Your task to perform on an android device: toggle translation in the chrome app Image 0: 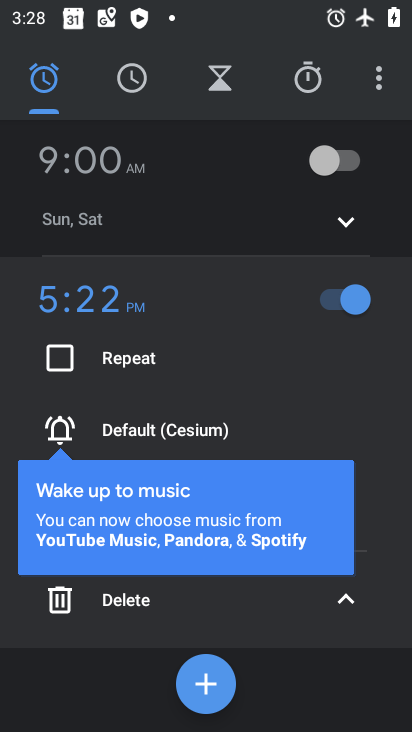
Step 0: press home button
Your task to perform on an android device: toggle translation in the chrome app Image 1: 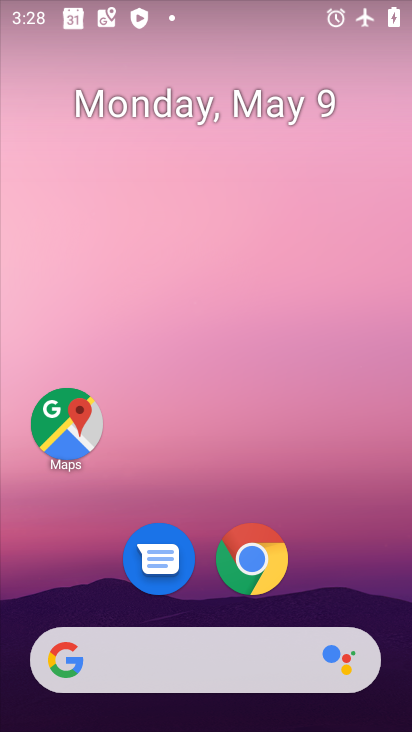
Step 1: click (249, 558)
Your task to perform on an android device: toggle translation in the chrome app Image 2: 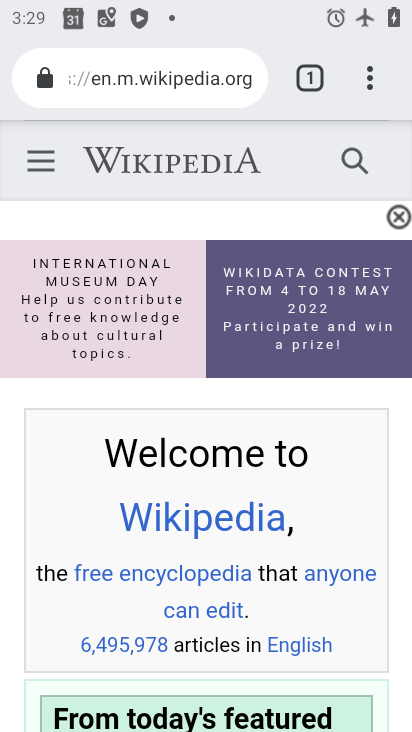
Step 2: click (373, 80)
Your task to perform on an android device: toggle translation in the chrome app Image 3: 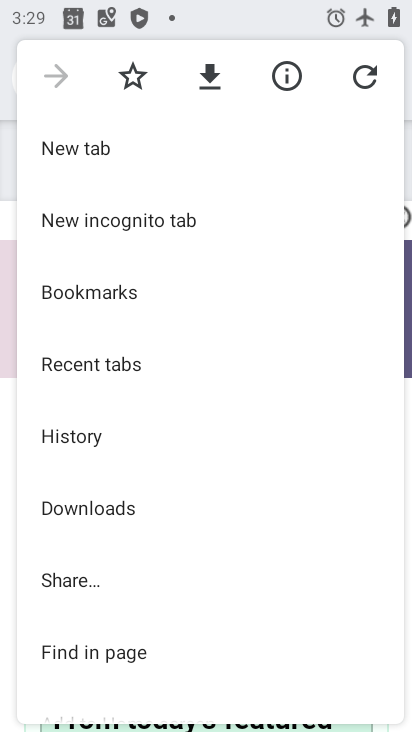
Step 3: drag from (135, 641) to (149, 390)
Your task to perform on an android device: toggle translation in the chrome app Image 4: 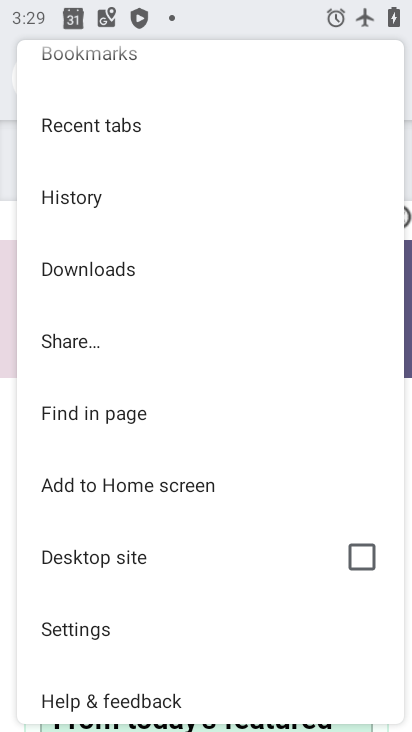
Step 4: click (83, 631)
Your task to perform on an android device: toggle translation in the chrome app Image 5: 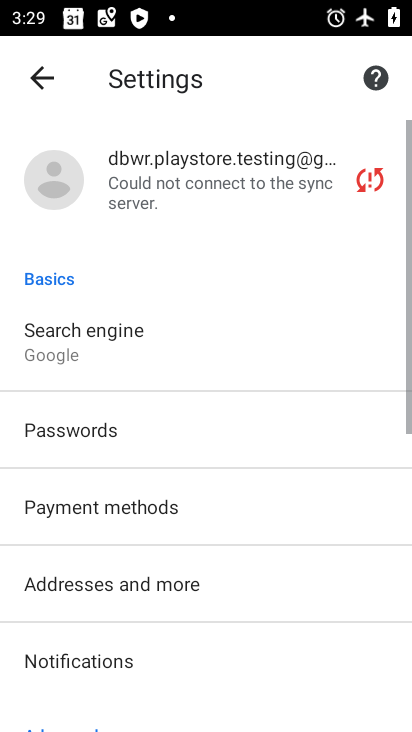
Step 5: drag from (169, 644) to (232, 349)
Your task to perform on an android device: toggle translation in the chrome app Image 6: 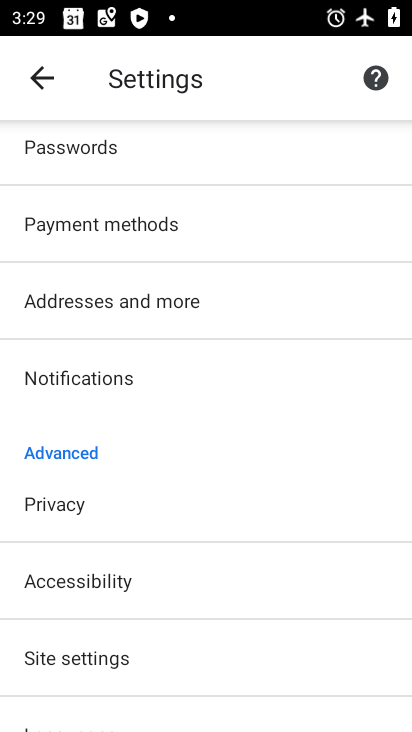
Step 6: drag from (201, 665) to (209, 428)
Your task to perform on an android device: toggle translation in the chrome app Image 7: 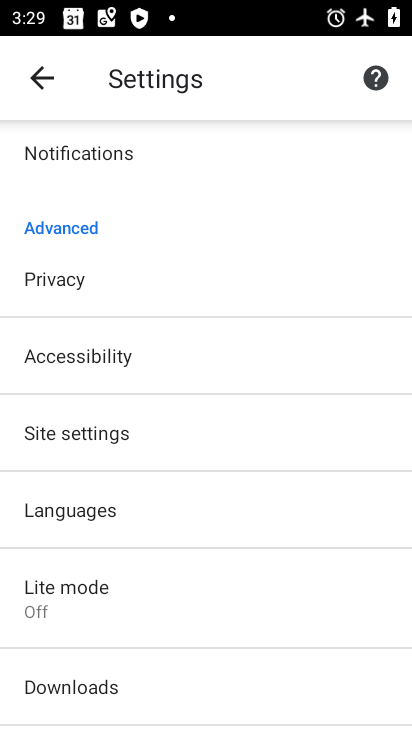
Step 7: click (95, 503)
Your task to perform on an android device: toggle translation in the chrome app Image 8: 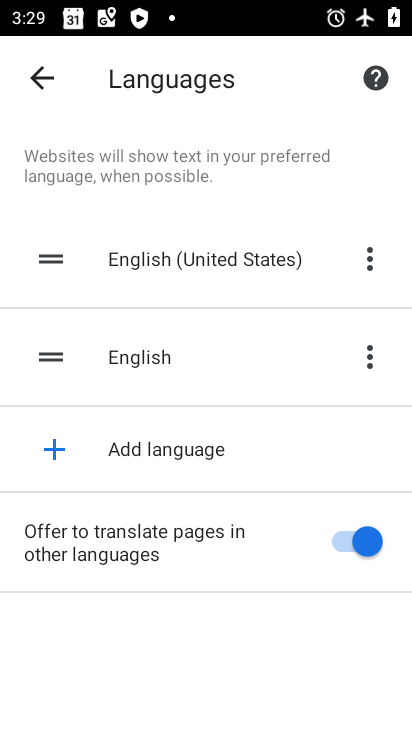
Step 8: click (341, 544)
Your task to perform on an android device: toggle translation in the chrome app Image 9: 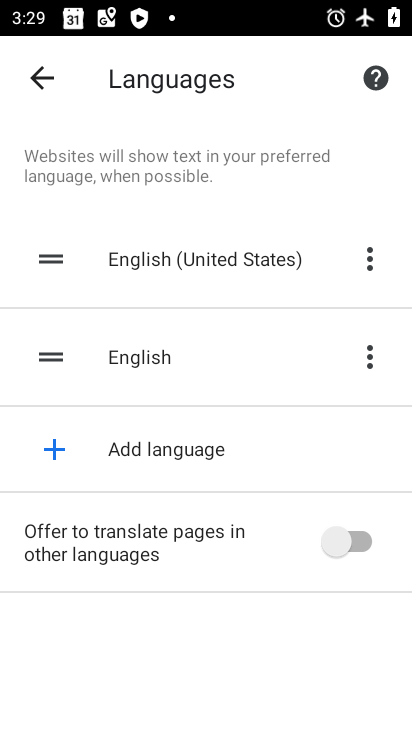
Step 9: task complete